Your task to perform on an android device: check the backup settings in the google photos Image 0: 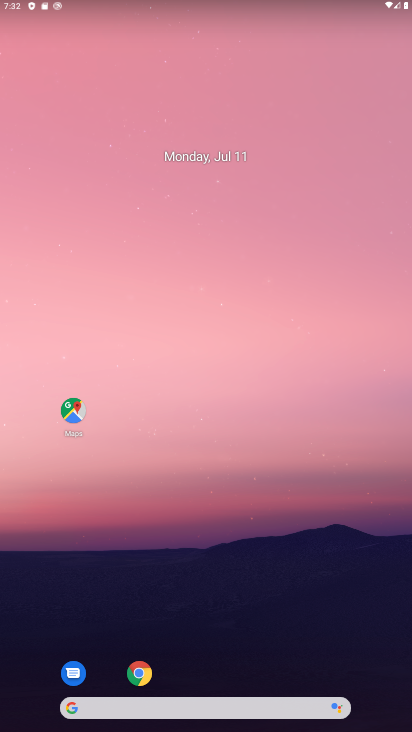
Step 0: drag from (168, 698) to (179, 261)
Your task to perform on an android device: check the backup settings in the google photos Image 1: 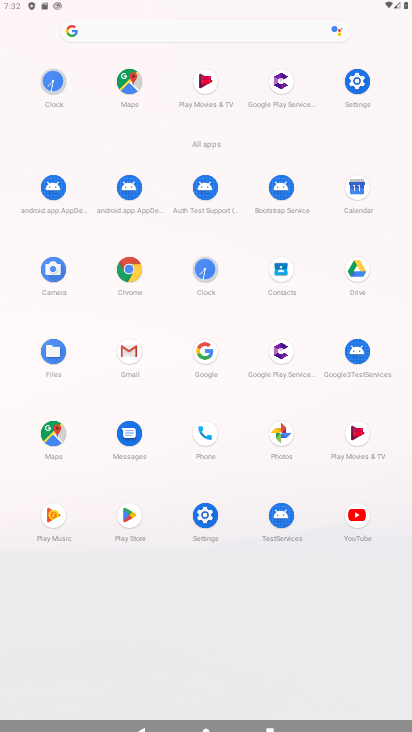
Step 1: click (287, 442)
Your task to perform on an android device: check the backup settings in the google photos Image 2: 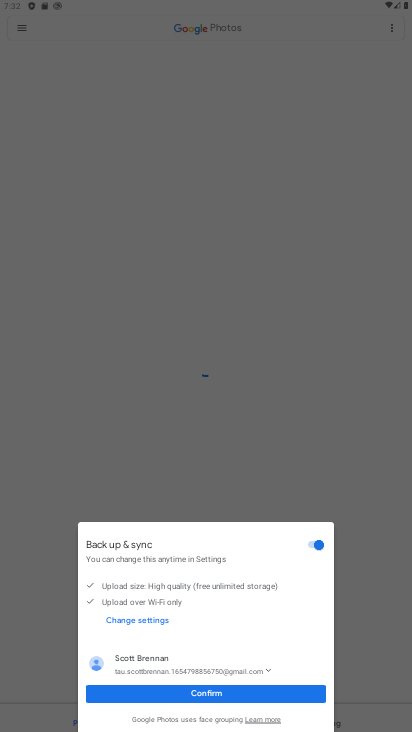
Step 2: click (213, 692)
Your task to perform on an android device: check the backup settings in the google photos Image 3: 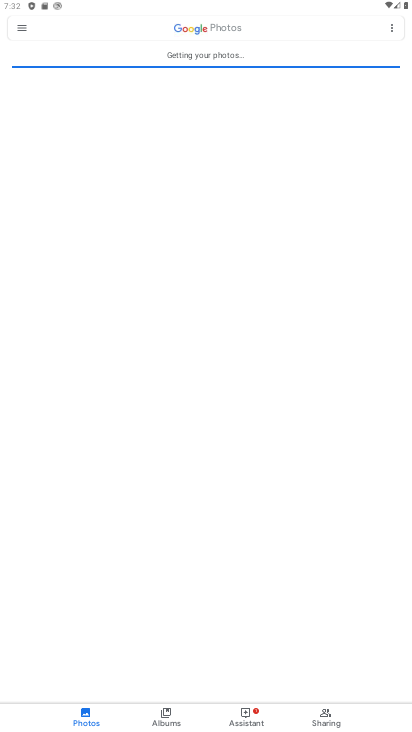
Step 3: click (21, 31)
Your task to perform on an android device: check the backup settings in the google photos Image 4: 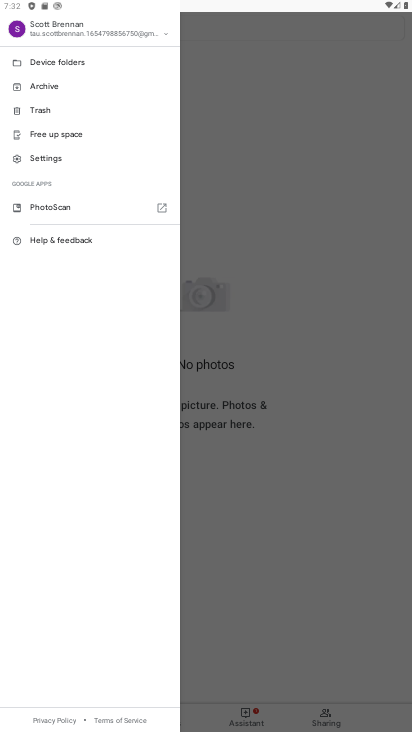
Step 4: click (51, 159)
Your task to perform on an android device: check the backup settings in the google photos Image 5: 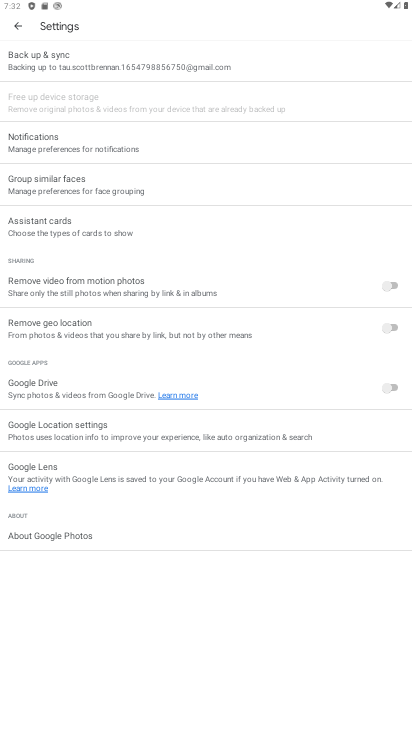
Step 5: click (58, 67)
Your task to perform on an android device: check the backup settings in the google photos Image 6: 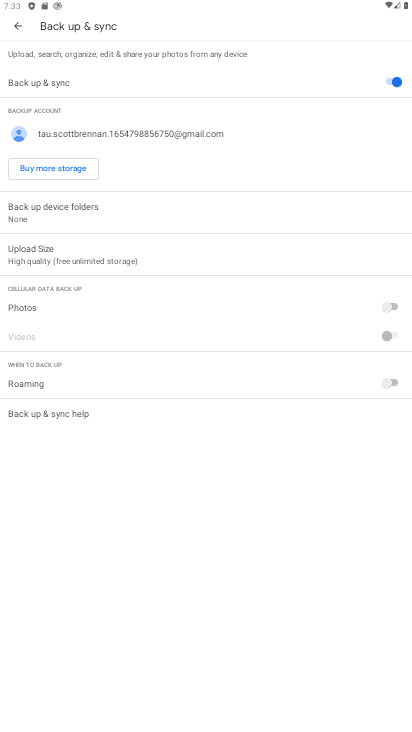
Step 6: task complete